Your task to perform on an android device: Open the stopwatch Image 0: 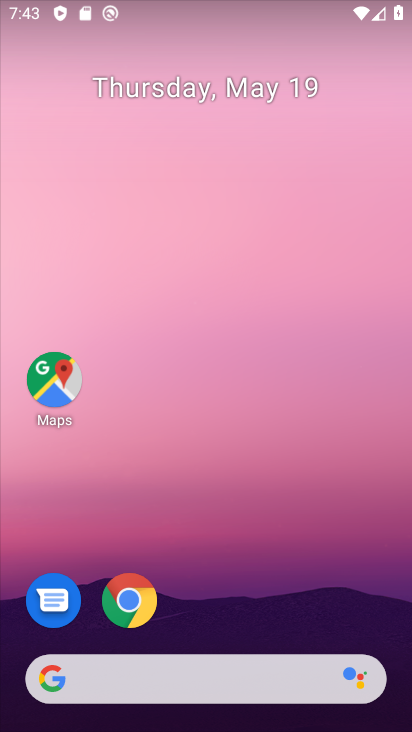
Step 0: drag from (379, 602) to (368, 205)
Your task to perform on an android device: Open the stopwatch Image 1: 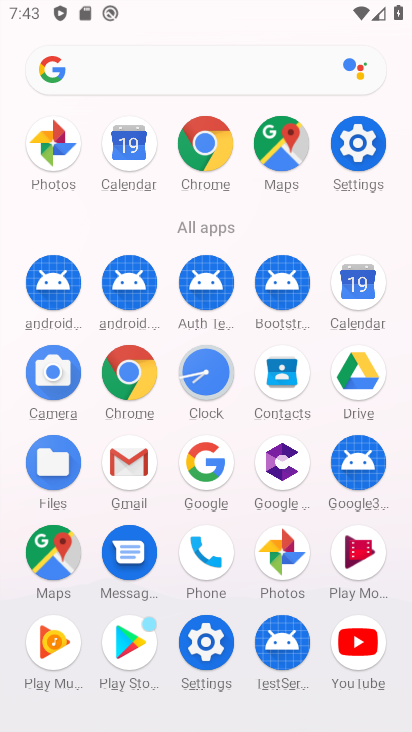
Step 1: click (214, 381)
Your task to perform on an android device: Open the stopwatch Image 2: 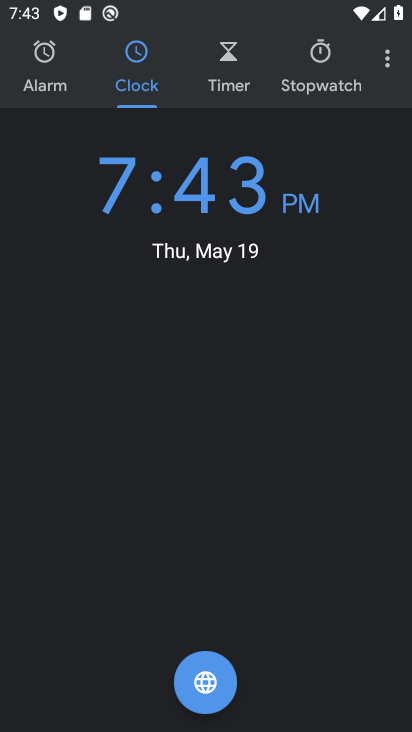
Step 2: click (314, 74)
Your task to perform on an android device: Open the stopwatch Image 3: 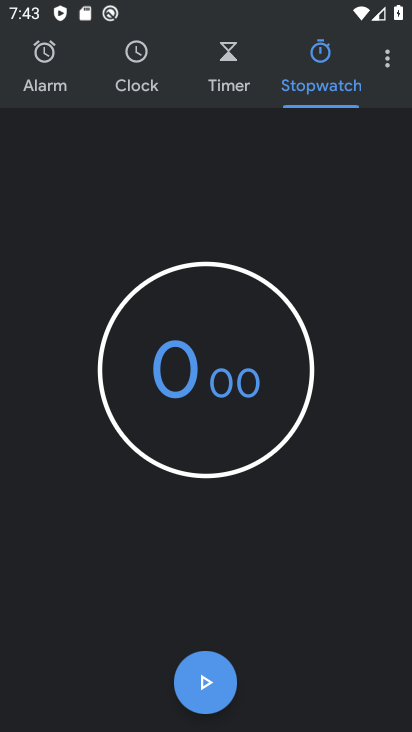
Step 3: task complete